Your task to perform on an android device: turn on javascript in the chrome app Image 0: 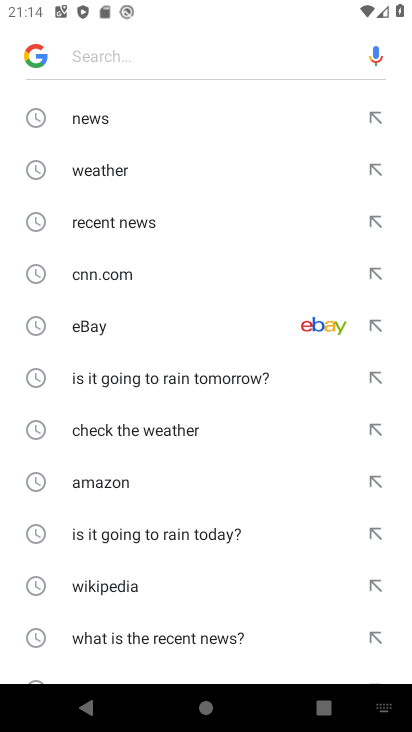
Step 0: press home button
Your task to perform on an android device: turn on javascript in the chrome app Image 1: 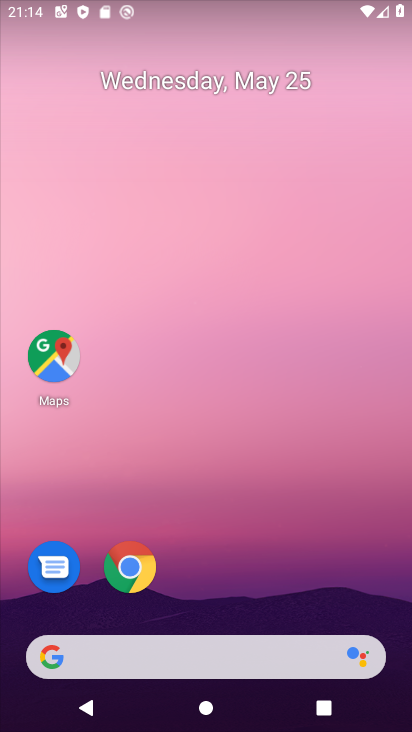
Step 1: click (130, 569)
Your task to perform on an android device: turn on javascript in the chrome app Image 2: 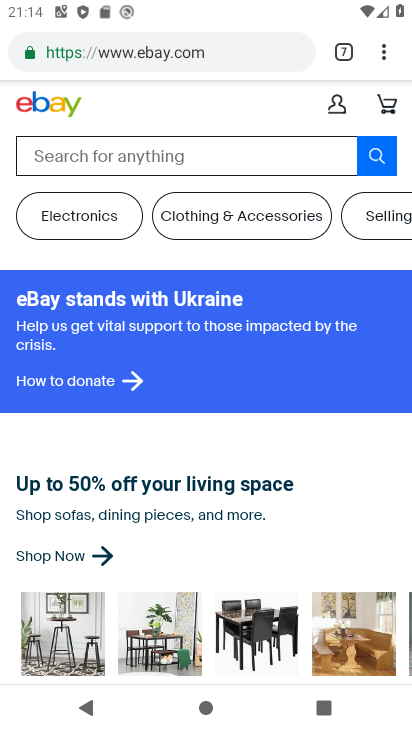
Step 2: click (380, 48)
Your task to perform on an android device: turn on javascript in the chrome app Image 3: 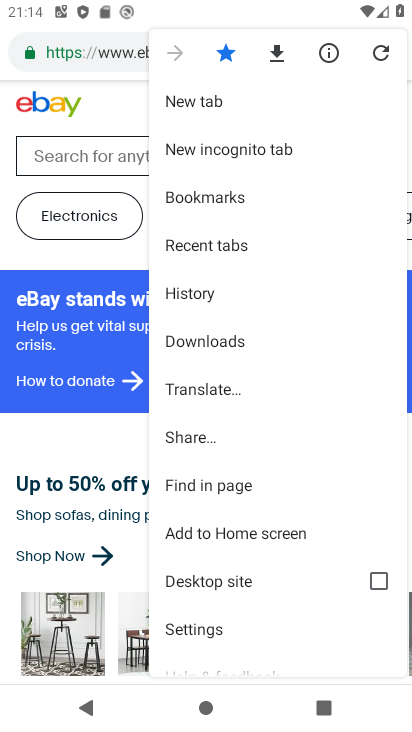
Step 3: click (230, 619)
Your task to perform on an android device: turn on javascript in the chrome app Image 4: 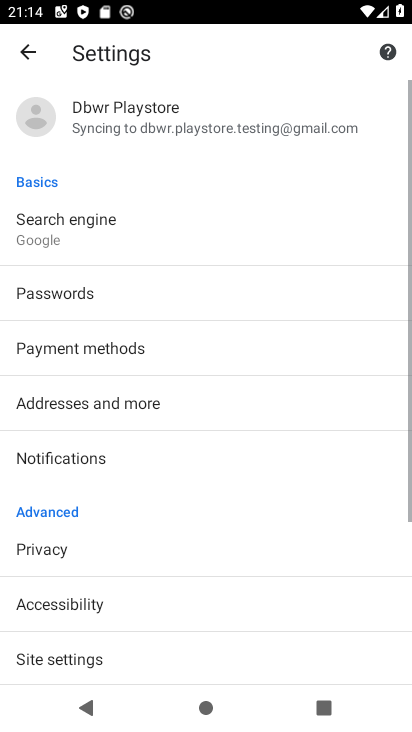
Step 4: click (215, 657)
Your task to perform on an android device: turn on javascript in the chrome app Image 5: 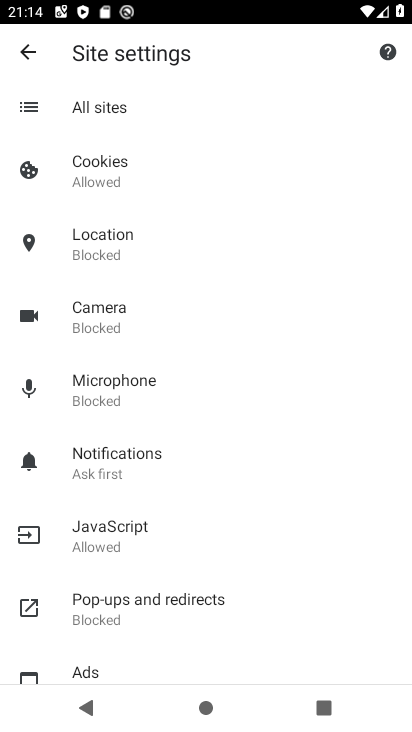
Step 5: click (241, 532)
Your task to perform on an android device: turn on javascript in the chrome app Image 6: 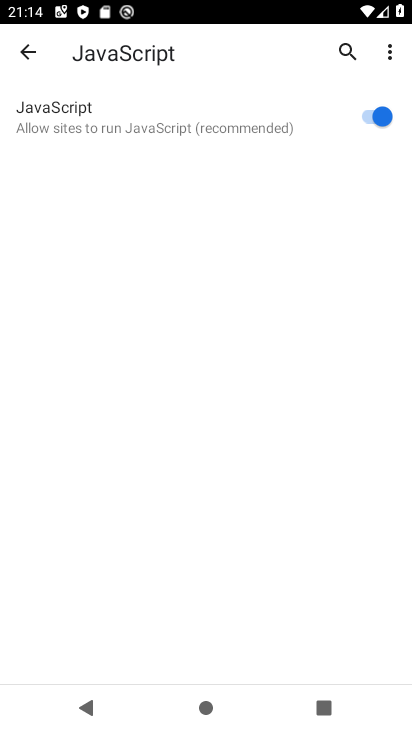
Step 6: task complete